Your task to perform on an android device: set an alarm Image 0: 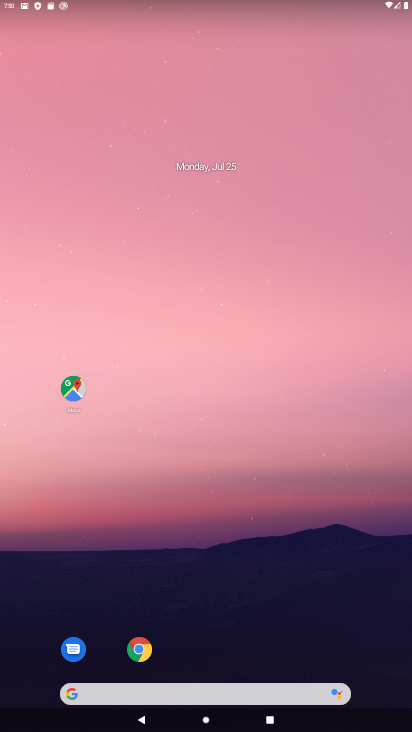
Step 0: drag from (183, 694) to (186, 53)
Your task to perform on an android device: set an alarm Image 1: 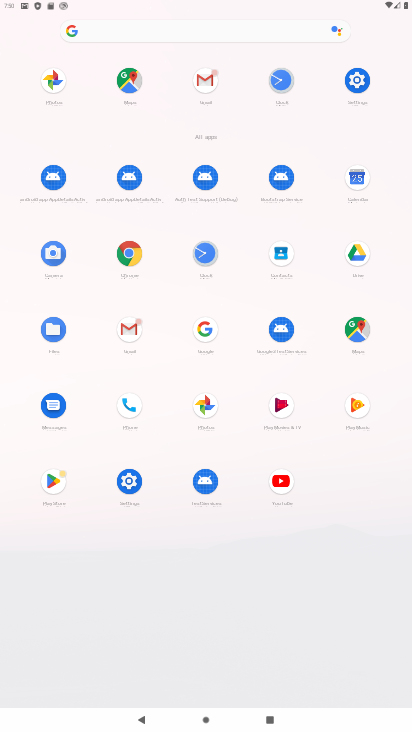
Step 1: click (281, 81)
Your task to perform on an android device: set an alarm Image 2: 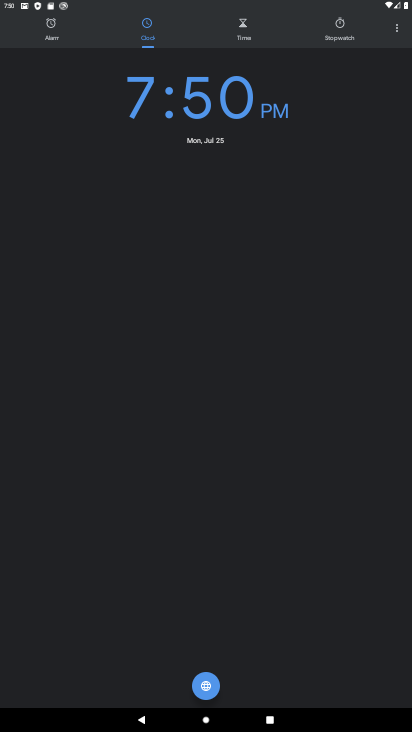
Step 2: click (51, 28)
Your task to perform on an android device: set an alarm Image 3: 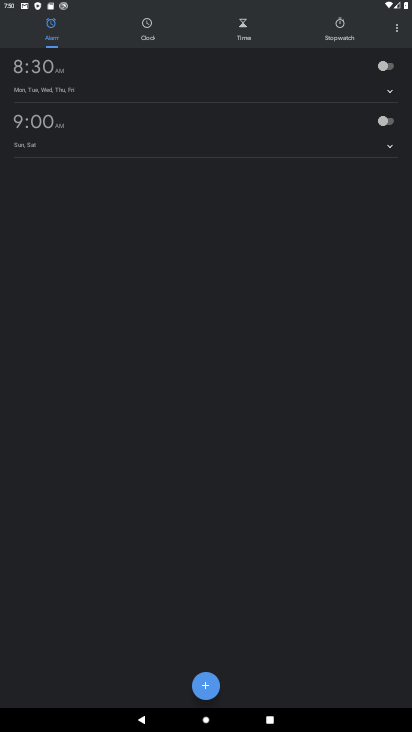
Step 3: click (207, 686)
Your task to perform on an android device: set an alarm Image 4: 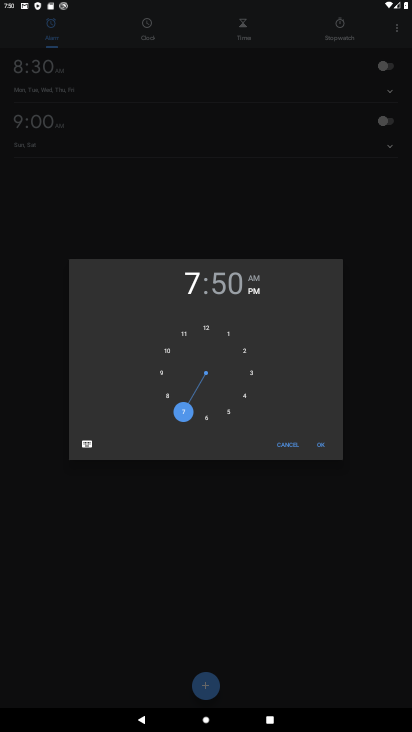
Step 4: click (204, 327)
Your task to perform on an android device: set an alarm Image 5: 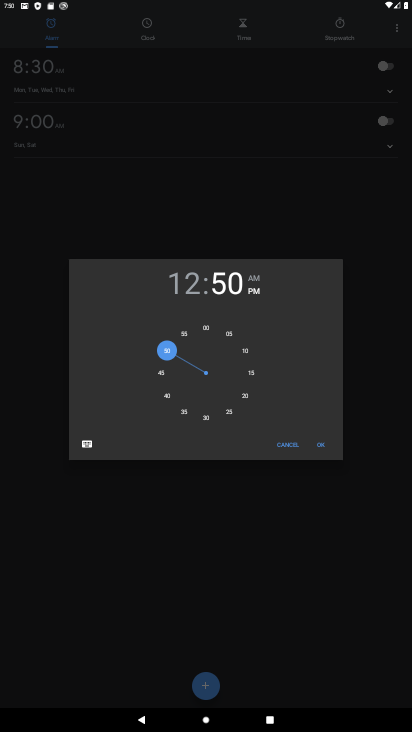
Step 5: click (204, 327)
Your task to perform on an android device: set an alarm Image 6: 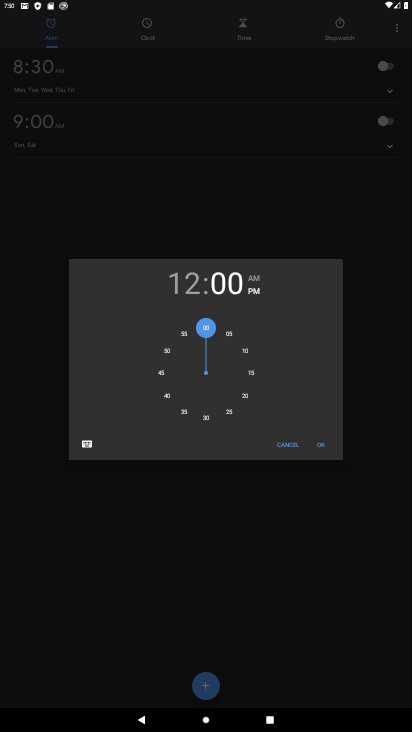
Step 6: click (255, 279)
Your task to perform on an android device: set an alarm Image 7: 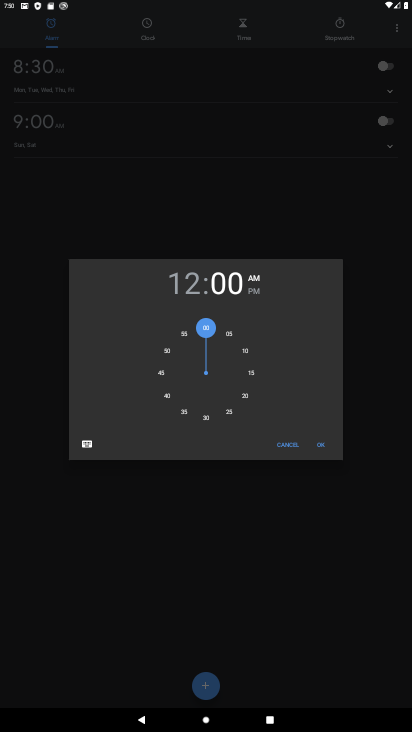
Step 7: click (325, 445)
Your task to perform on an android device: set an alarm Image 8: 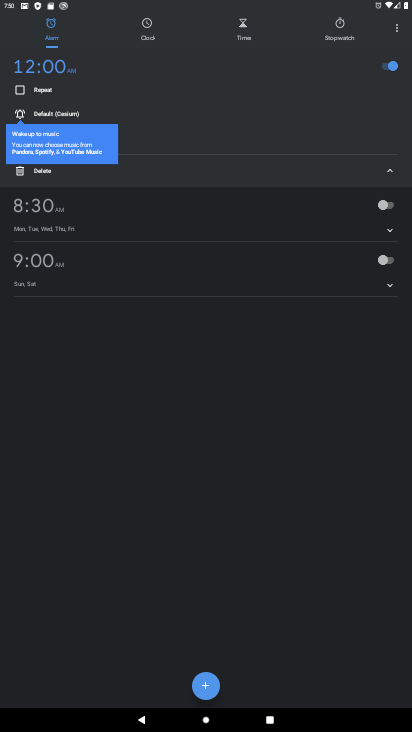
Step 8: task complete